Your task to perform on an android device: find which apps use the phone's location Image 0: 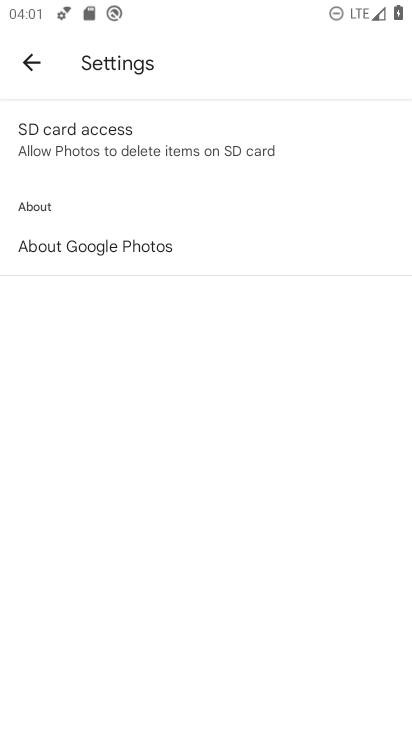
Step 0: press home button
Your task to perform on an android device: find which apps use the phone's location Image 1: 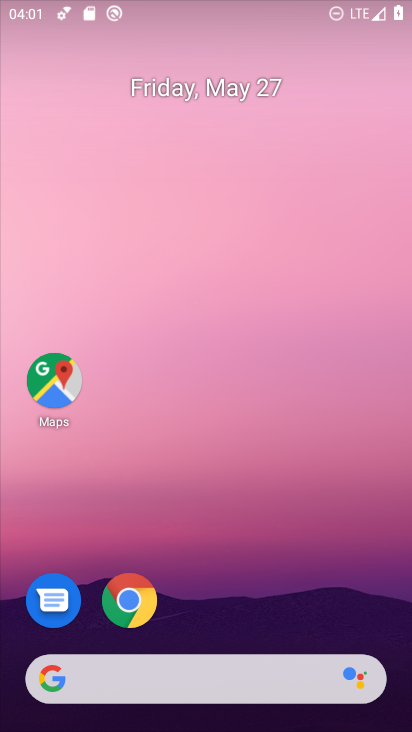
Step 1: drag from (229, 705) to (227, 185)
Your task to perform on an android device: find which apps use the phone's location Image 2: 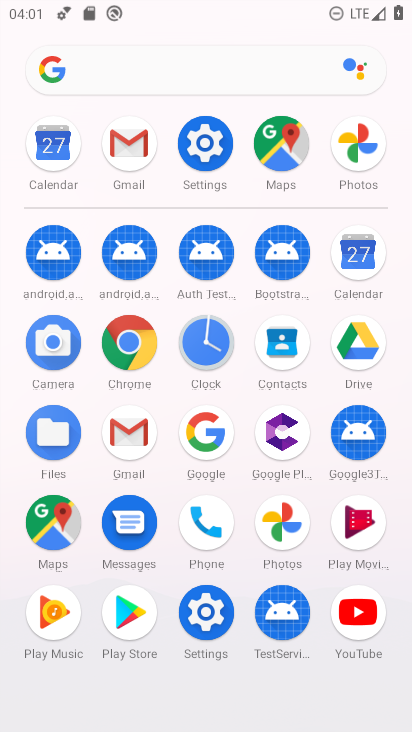
Step 2: click (211, 607)
Your task to perform on an android device: find which apps use the phone's location Image 3: 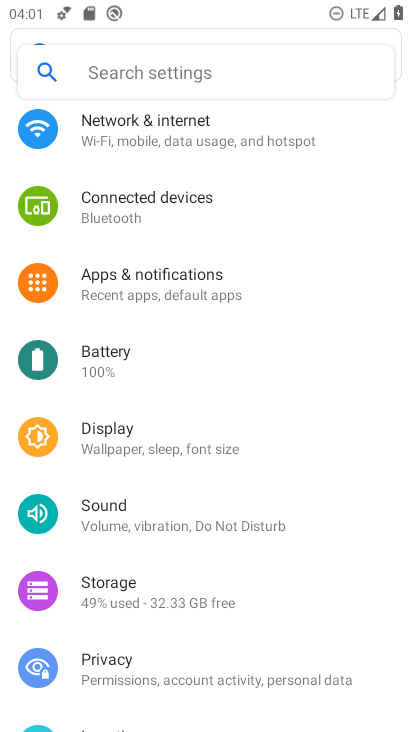
Step 3: drag from (175, 703) to (175, 345)
Your task to perform on an android device: find which apps use the phone's location Image 4: 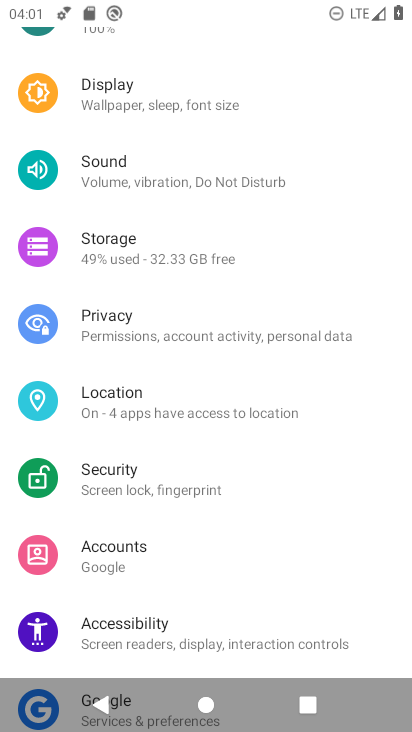
Step 4: click (106, 401)
Your task to perform on an android device: find which apps use the phone's location Image 5: 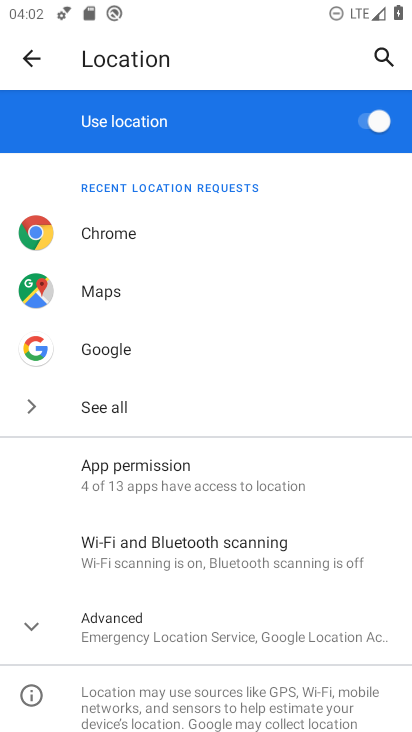
Step 5: click (134, 470)
Your task to perform on an android device: find which apps use the phone's location Image 6: 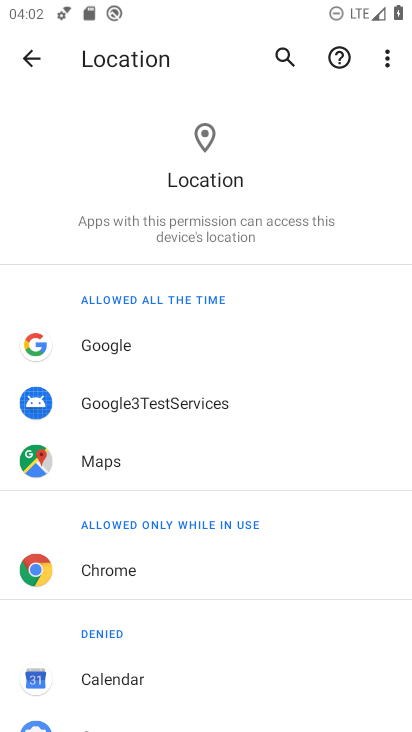
Step 6: task complete